Your task to perform on an android device: turn off notifications in google photos Image 0: 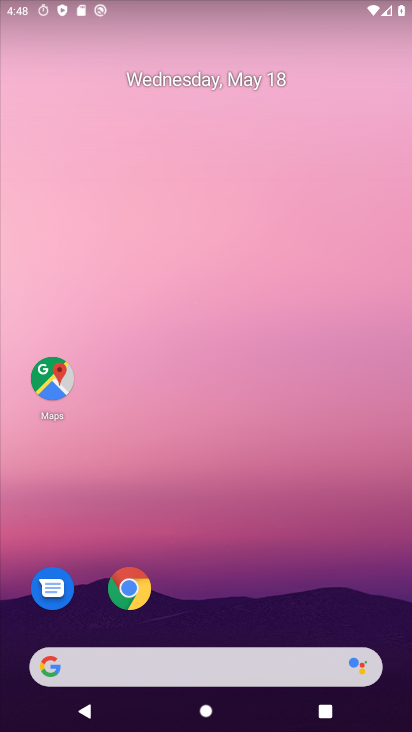
Step 0: drag from (229, 578) to (319, 57)
Your task to perform on an android device: turn off notifications in google photos Image 1: 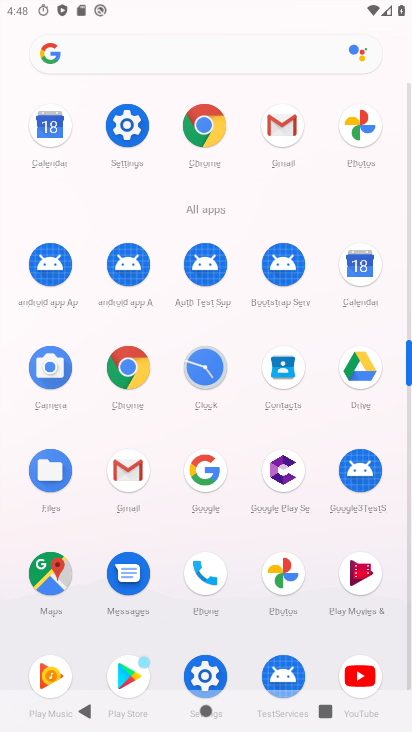
Step 1: click (353, 126)
Your task to perform on an android device: turn off notifications in google photos Image 2: 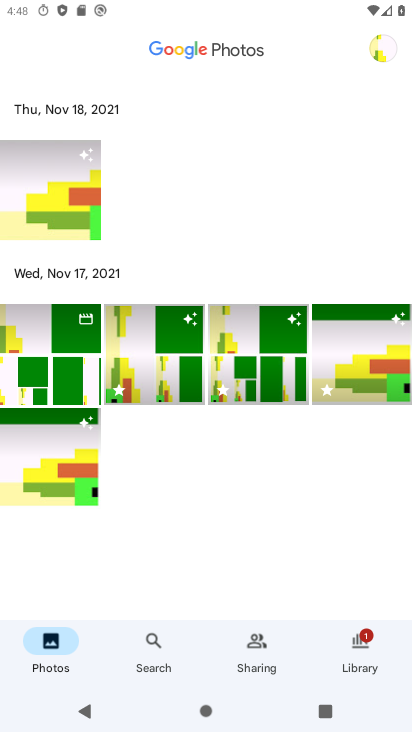
Step 2: press home button
Your task to perform on an android device: turn off notifications in google photos Image 3: 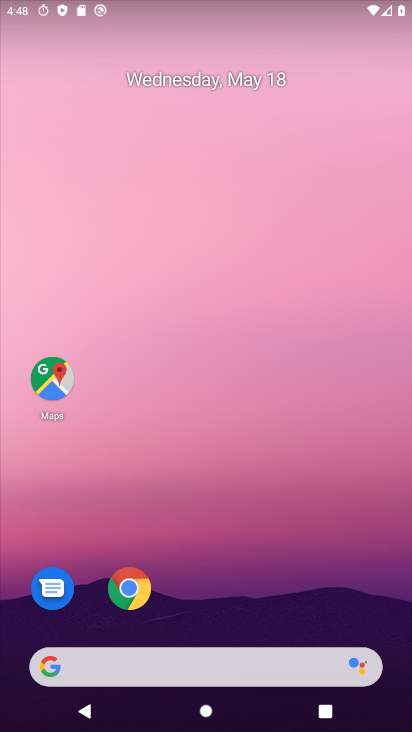
Step 3: drag from (171, 616) to (247, 139)
Your task to perform on an android device: turn off notifications in google photos Image 4: 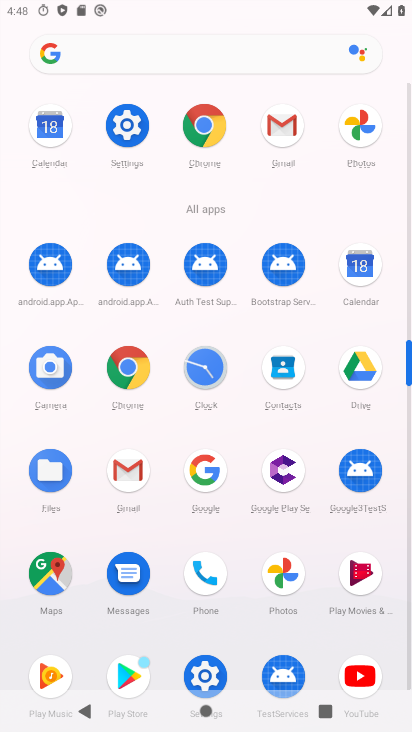
Step 4: click (364, 120)
Your task to perform on an android device: turn off notifications in google photos Image 5: 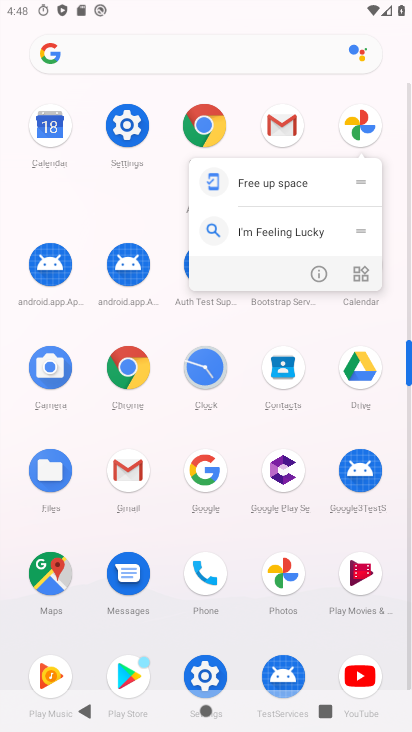
Step 5: click (320, 270)
Your task to perform on an android device: turn off notifications in google photos Image 6: 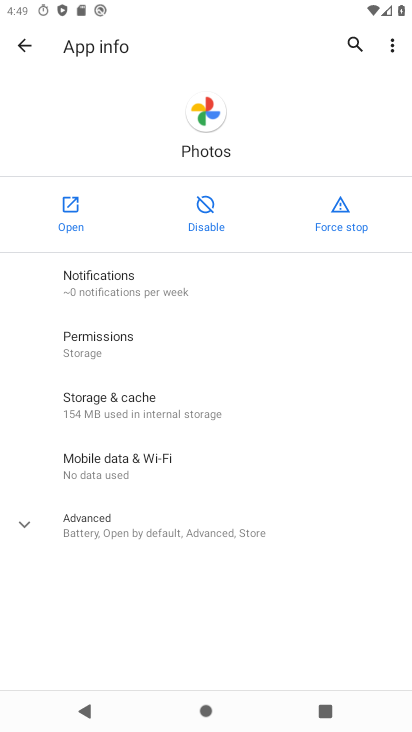
Step 6: click (159, 287)
Your task to perform on an android device: turn off notifications in google photos Image 7: 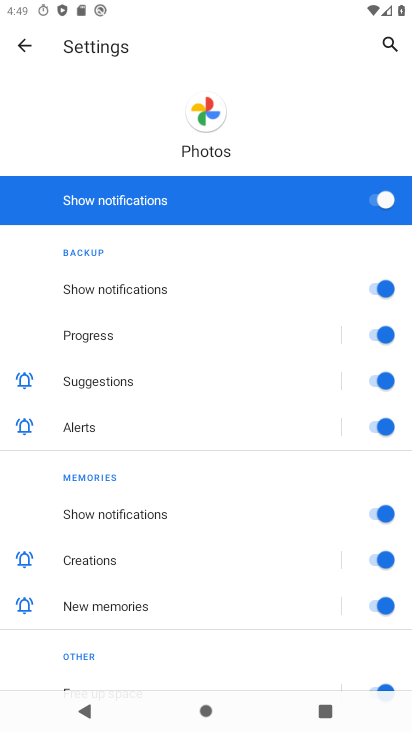
Step 7: click (378, 195)
Your task to perform on an android device: turn off notifications in google photos Image 8: 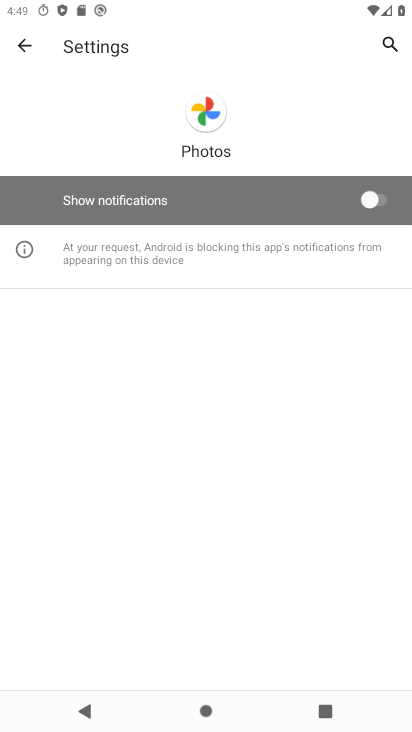
Step 8: task complete